Your task to perform on an android device: open a new tab in the chrome app Image 0: 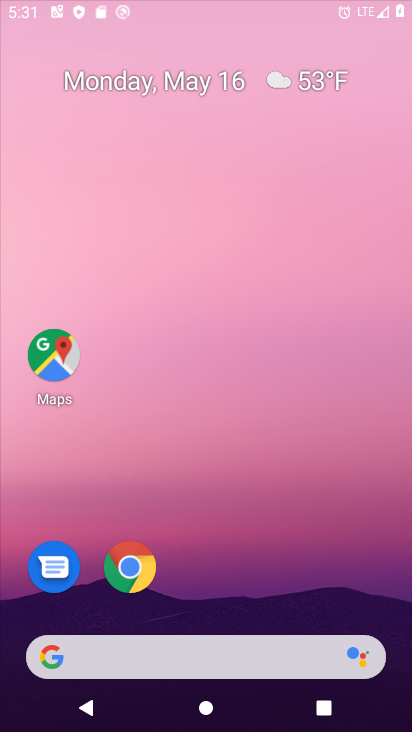
Step 0: drag from (228, 646) to (259, 89)
Your task to perform on an android device: open a new tab in the chrome app Image 1: 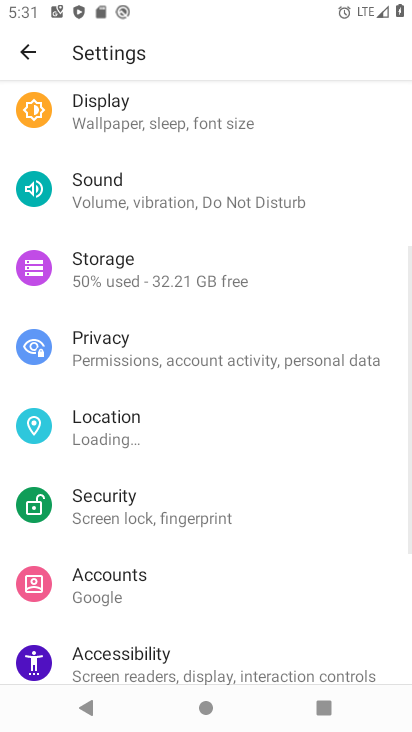
Step 1: press home button
Your task to perform on an android device: open a new tab in the chrome app Image 2: 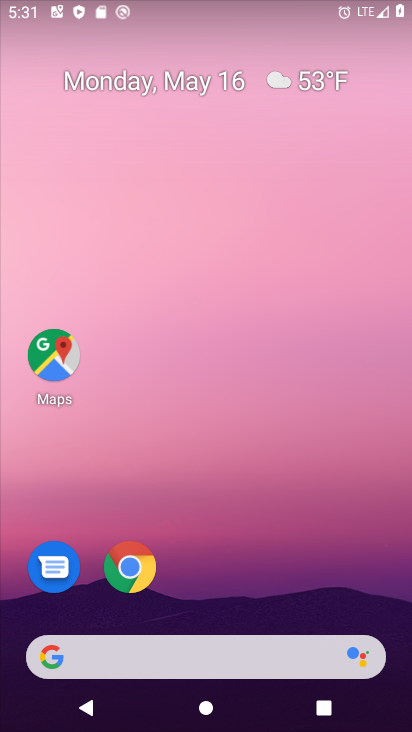
Step 2: drag from (178, 655) to (211, 13)
Your task to perform on an android device: open a new tab in the chrome app Image 3: 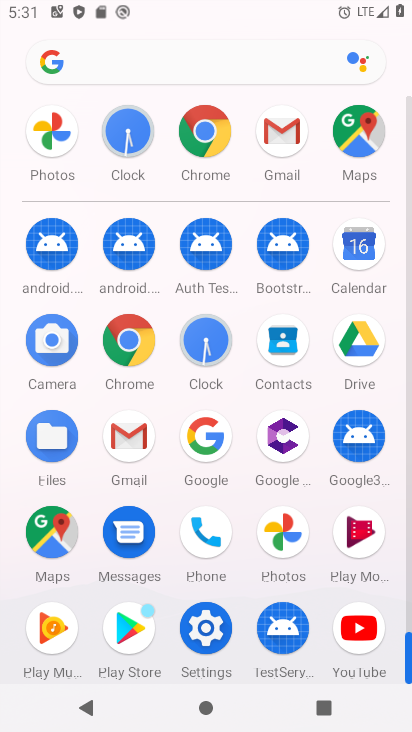
Step 3: click (125, 345)
Your task to perform on an android device: open a new tab in the chrome app Image 4: 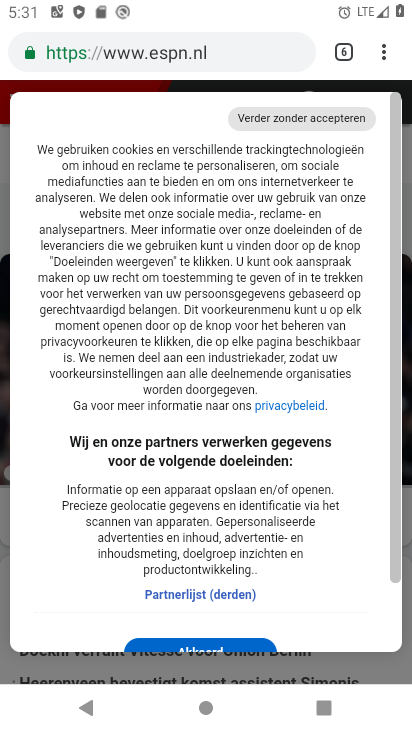
Step 4: click (378, 44)
Your task to perform on an android device: open a new tab in the chrome app Image 5: 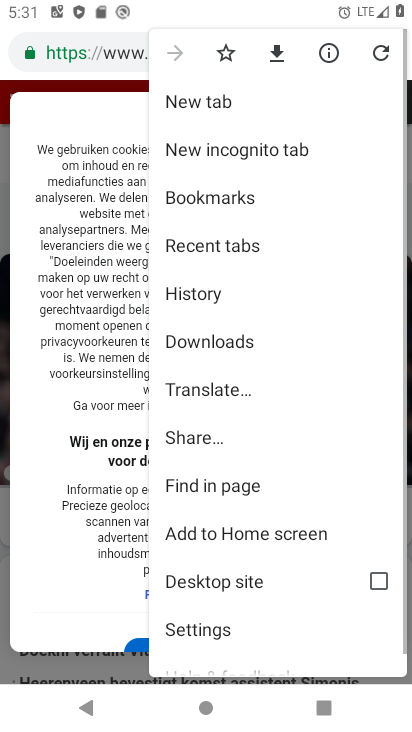
Step 5: click (165, 99)
Your task to perform on an android device: open a new tab in the chrome app Image 6: 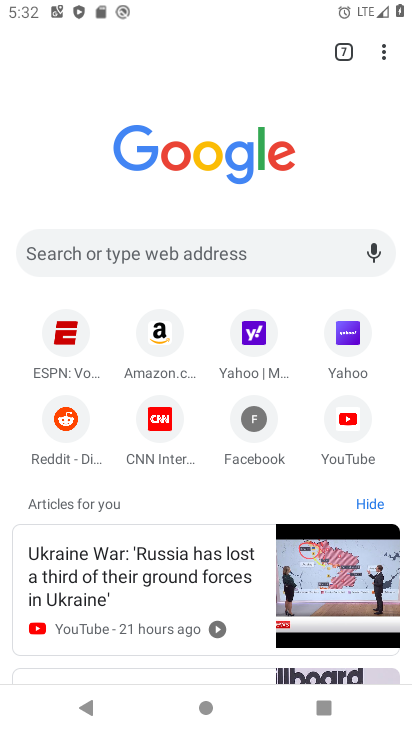
Step 6: task complete